Your task to perform on an android device: Toggle the flashlight Image 0: 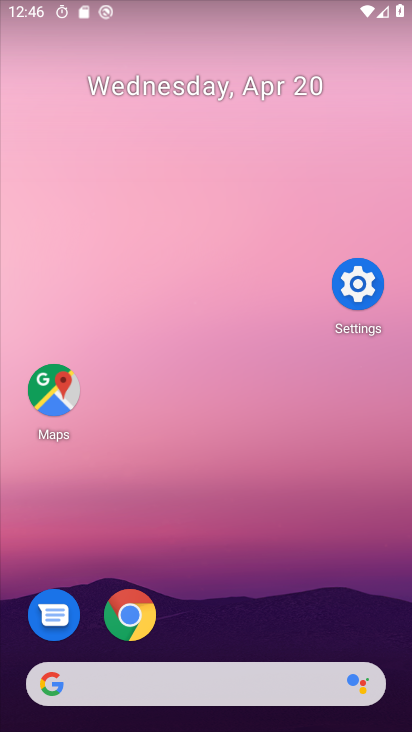
Step 0: drag from (205, 621) to (229, 237)
Your task to perform on an android device: Toggle the flashlight Image 1: 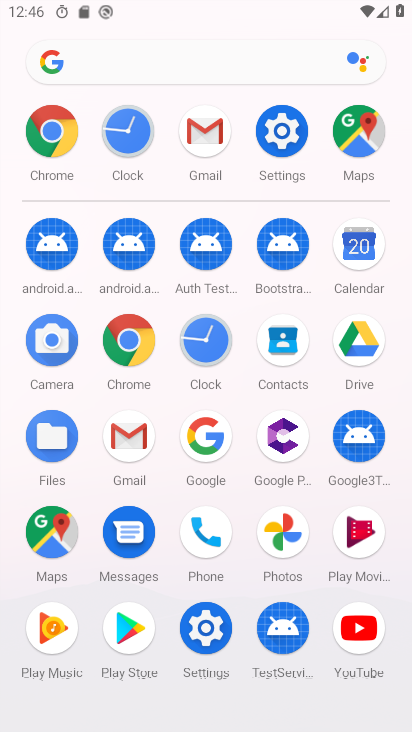
Step 1: click (281, 130)
Your task to perform on an android device: Toggle the flashlight Image 2: 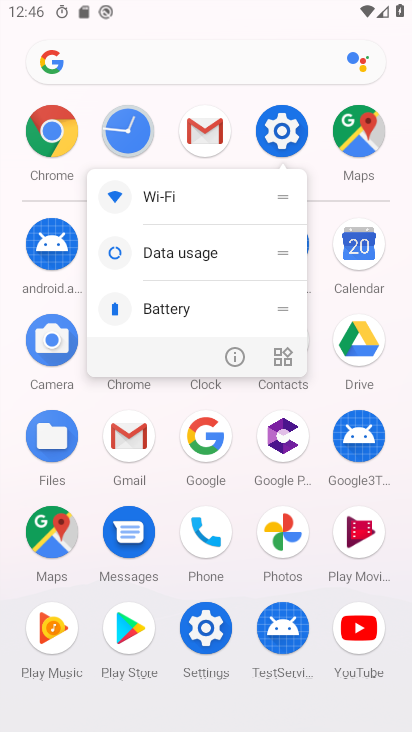
Step 2: click (223, 357)
Your task to perform on an android device: Toggle the flashlight Image 3: 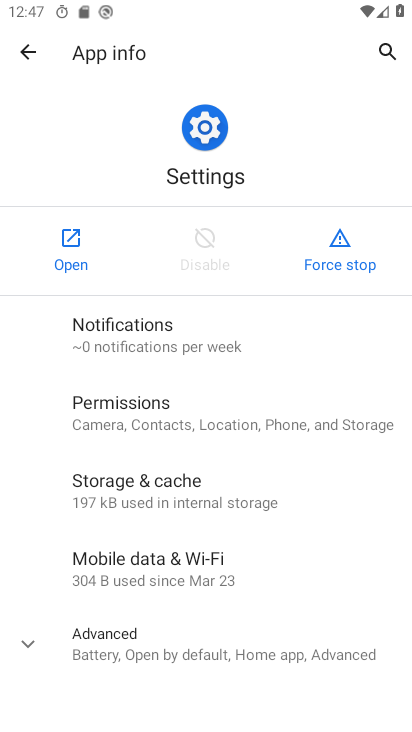
Step 3: click (68, 252)
Your task to perform on an android device: Toggle the flashlight Image 4: 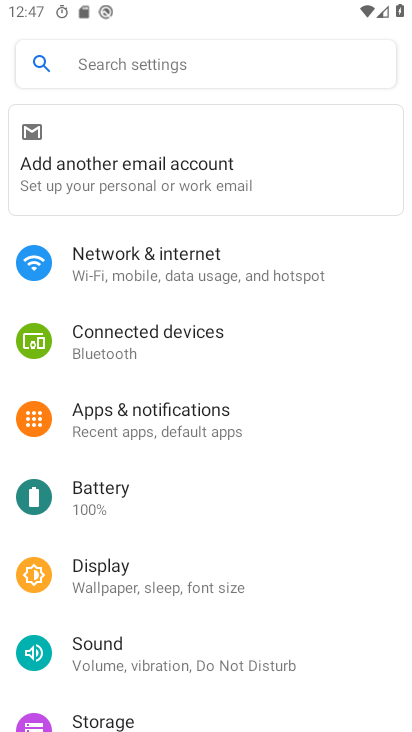
Step 4: click (141, 71)
Your task to perform on an android device: Toggle the flashlight Image 5: 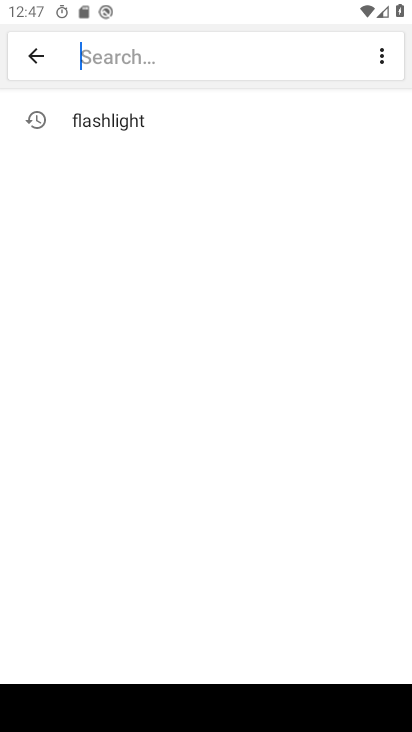
Step 5: type "flashlight"
Your task to perform on an android device: Toggle the flashlight Image 6: 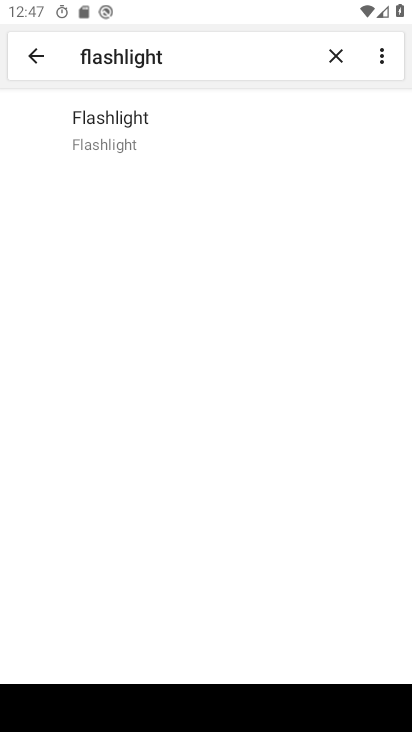
Step 6: click (126, 112)
Your task to perform on an android device: Toggle the flashlight Image 7: 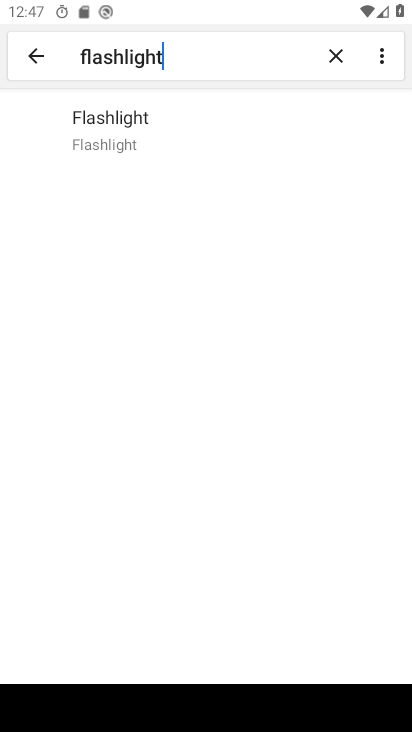
Step 7: task complete